Your task to perform on an android device: Open maps Image 0: 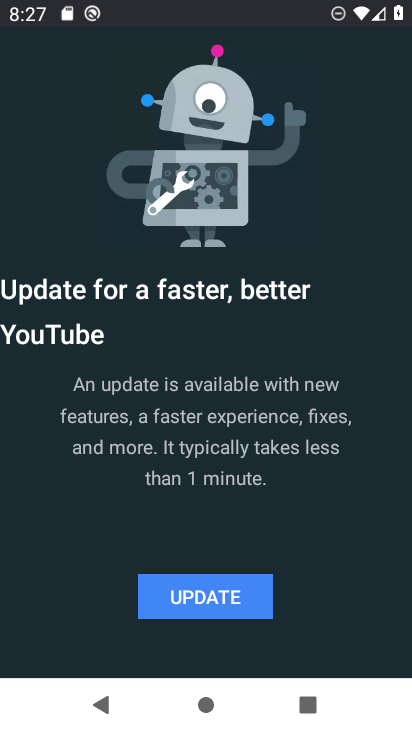
Step 0: drag from (356, 544) to (335, 116)
Your task to perform on an android device: Open maps Image 1: 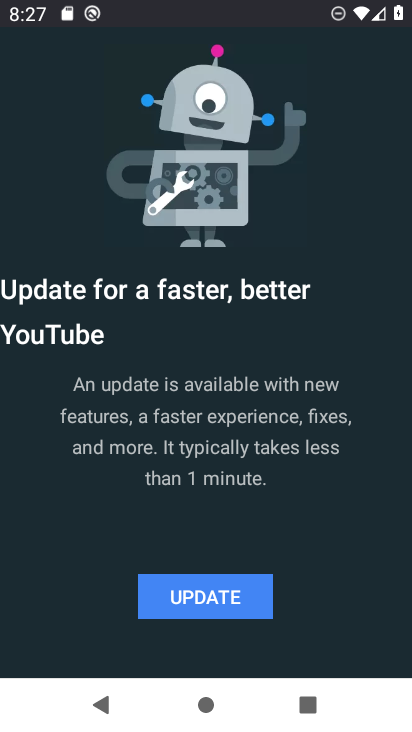
Step 1: press home button
Your task to perform on an android device: Open maps Image 2: 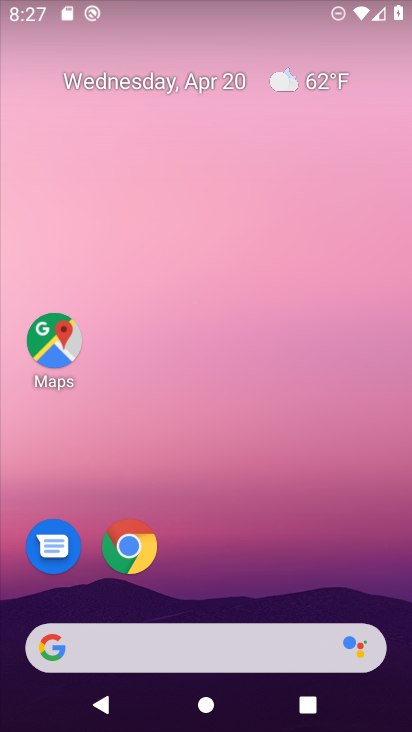
Step 2: click (51, 348)
Your task to perform on an android device: Open maps Image 3: 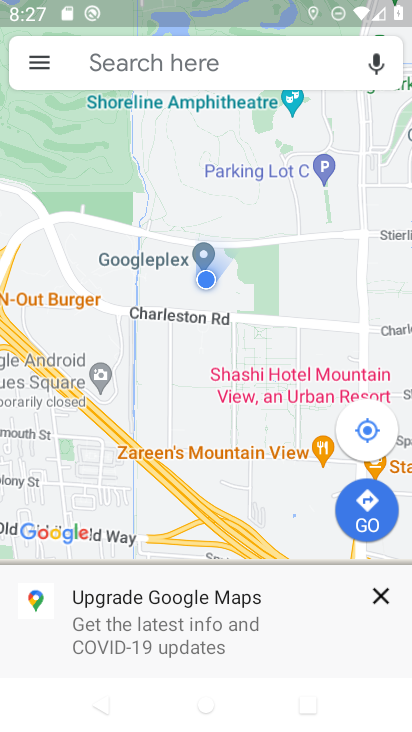
Step 3: task complete